Your task to perform on an android device: turn off javascript in the chrome app Image 0: 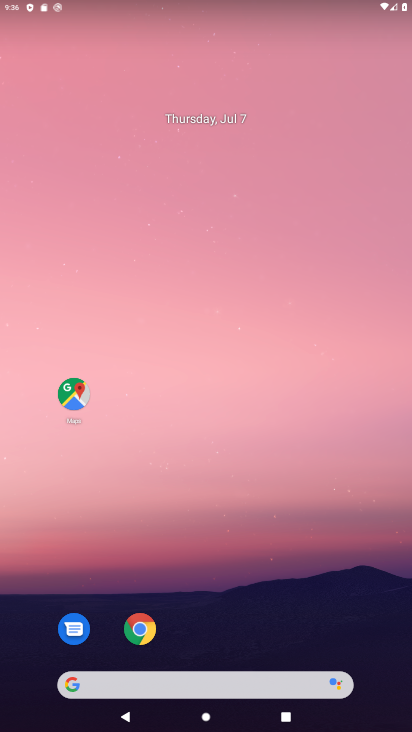
Step 0: click (134, 622)
Your task to perform on an android device: turn off javascript in the chrome app Image 1: 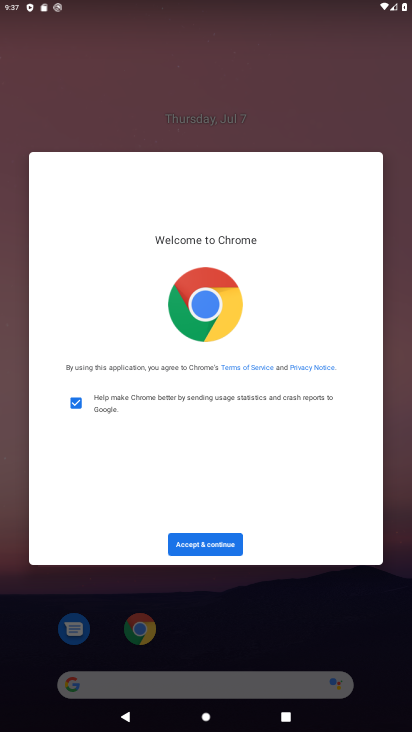
Step 1: click (220, 547)
Your task to perform on an android device: turn off javascript in the chrome app Image 2: 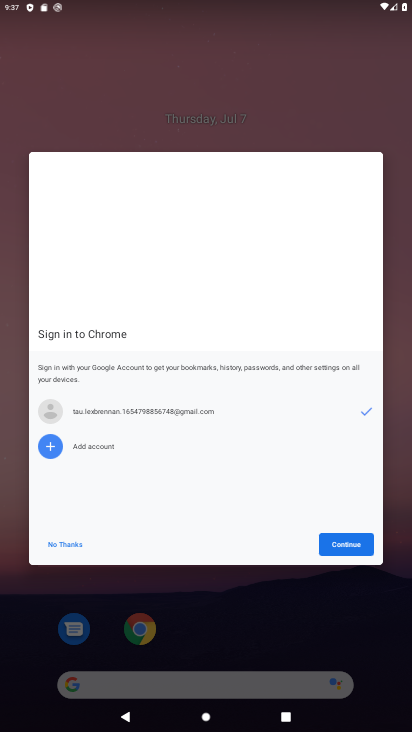
Step 2: click (358, 531)
Your task to perform on an android device: turn off javascript in the chrome app Image 3: 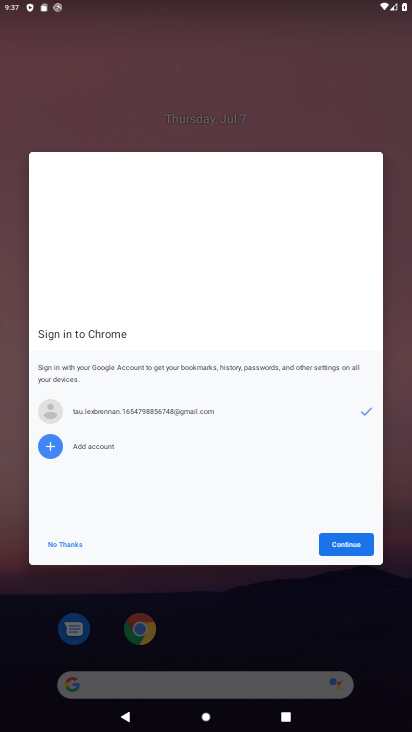
Step 3: click (358, 543)
Your task to perform on an android device: turn off javascript in the chrome app Image 4: 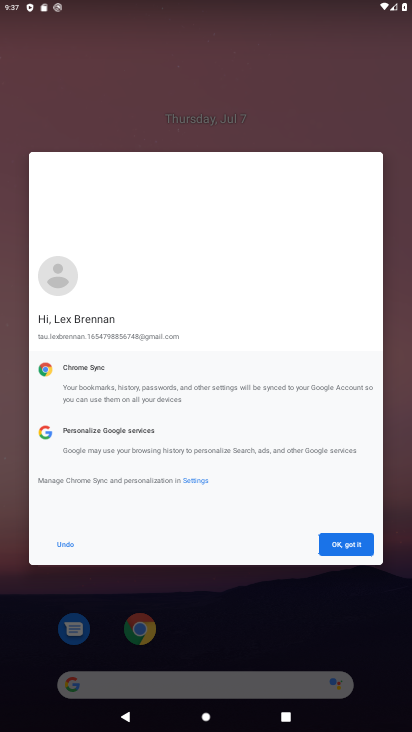
Step 4: click (358, 543)
Your task to perform on an android device: turn off javascript in the chrome app Image 5: 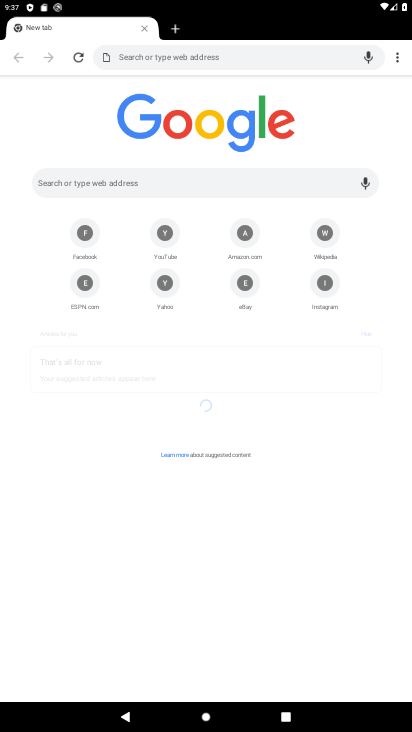
Step 5: click (396, 52)
Your task to perform on an android device: turn off javascript in the chrome app Image 6: 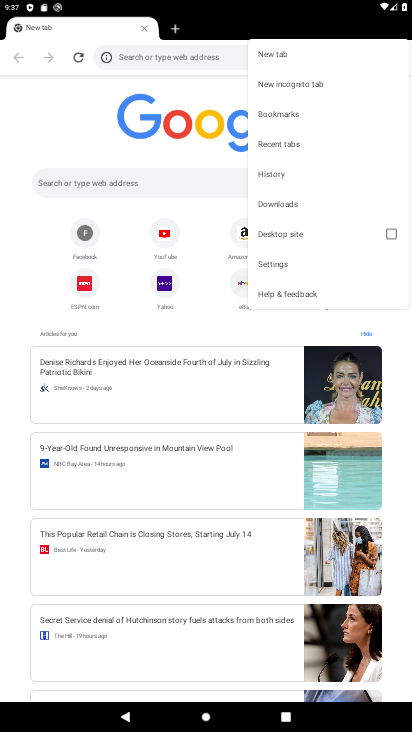
Step 6: click (297, 263)
Your task to perform on an android device: turn off javascript in the chrome app Image 7: 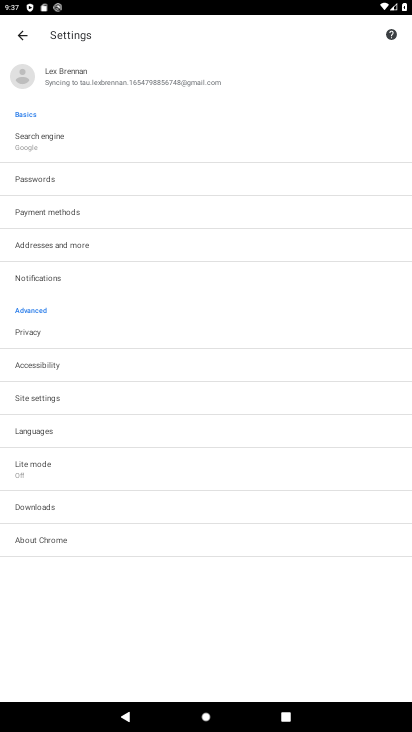
Step 7: click (101, 398)
Your task to perform on an android device: turn off javascript in the chrome app Image 8: 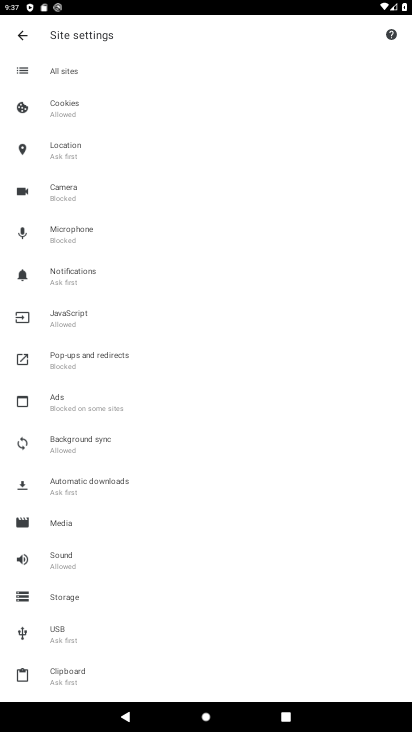
Step 8: click (84, 314)
Your task to perform on an android device: turn off javascript in the chrome app Image 9: 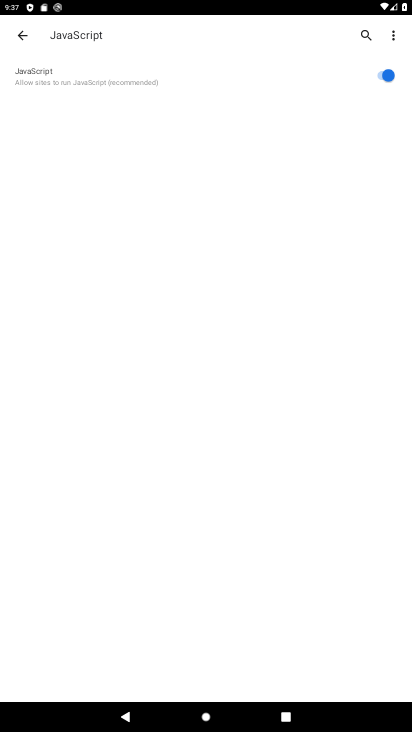
Step 9: click (377, 73)
Your task to perform on an android device: turn off javascript in the chrome app Image 10: 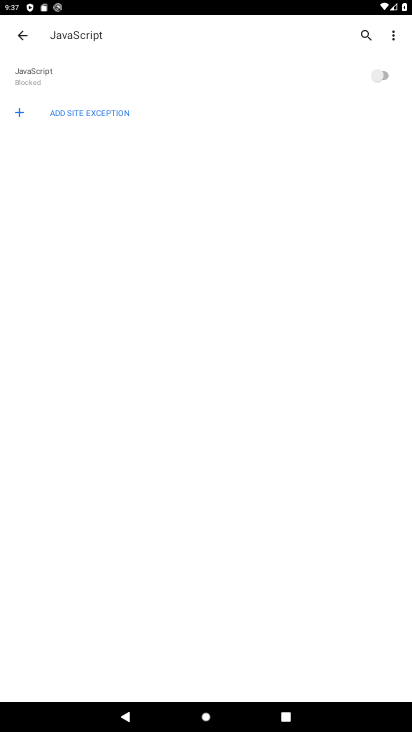
Step 10: task complete